Your task to perform on an android device: turn off javascript in the chrome app Image 0: 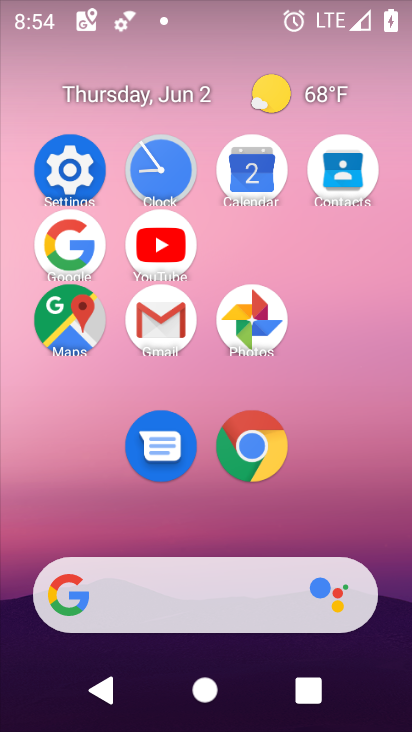
Step 0: click (245, 452)
Your task to perform on an android device: turn off javascript in the chrome app Image 1: 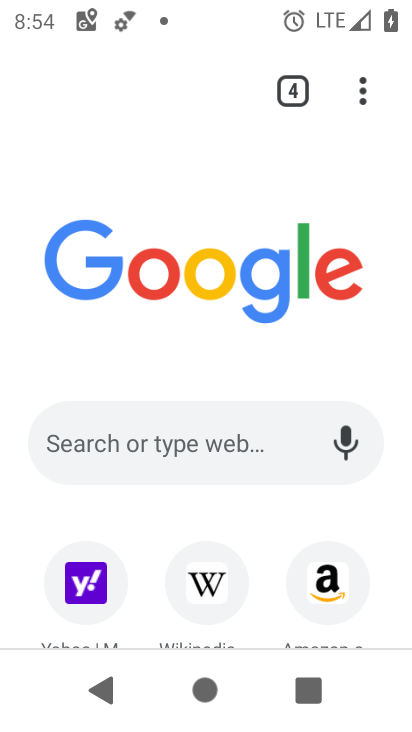
Step 1: click (376, 85)
Your task to perform on an android device: turn off javascript in the chrome app Image 2: 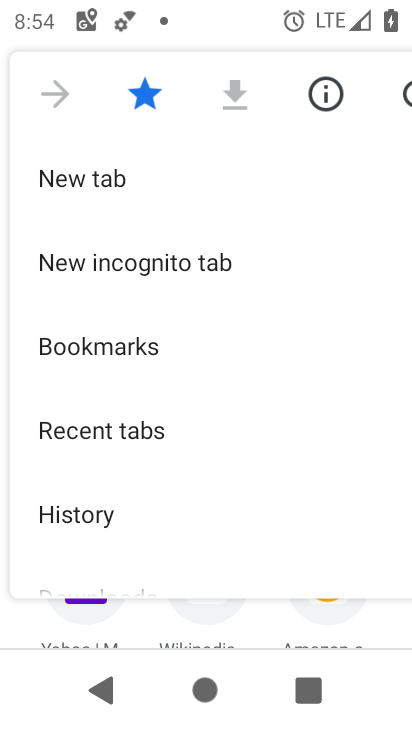
Step 2: drag from (206, 450) to (248, 140)
Your task to perform on an android device: turn off javascript in the chrome app Image 3: 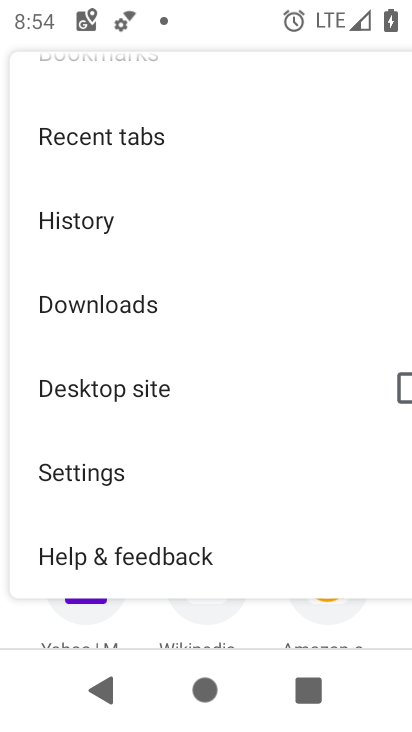
Step 3: click (189, 466)
Your task to perform on an android device: turn off javascript in the chrome app Image 4: 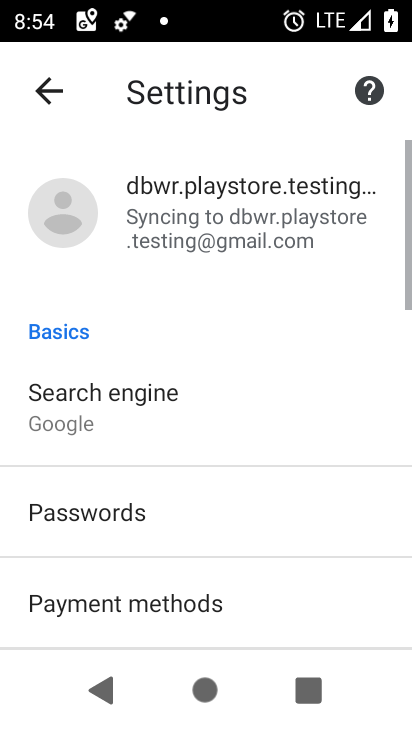
Step 4: drag from (189, 466) to (218, 153)
Your task to perform on an android device: turn off javascript in the chrome app Image 5: 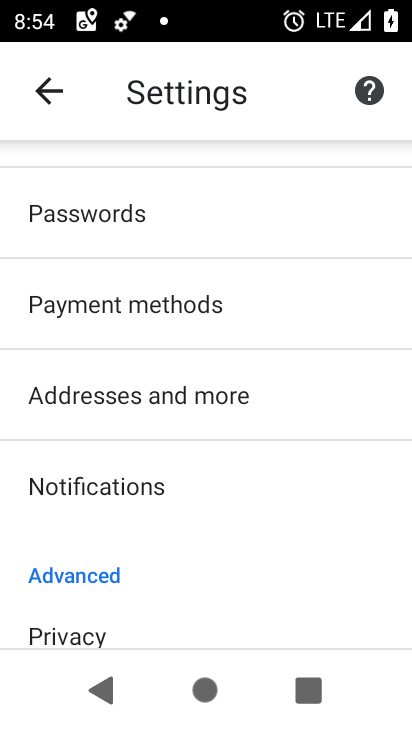
Step 5: drag from (183, 517) to (188, 125)
Your task to perform on an android device: turn off javascript in the chrome app Image 6: 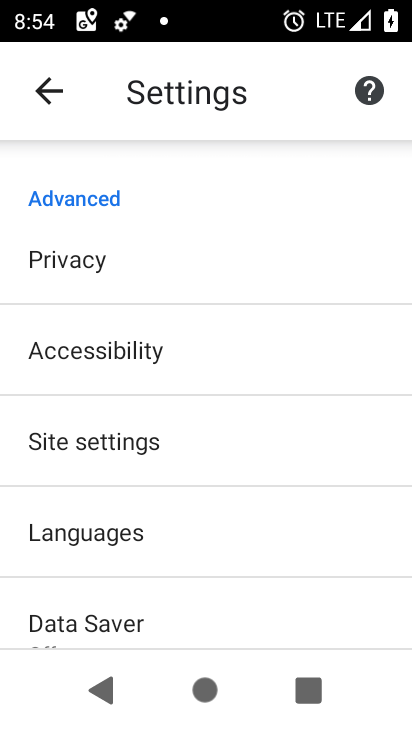
Step 6: click (185, 420)
Your task to perform on an android device: turn off javascript in the chrome app Image 7: 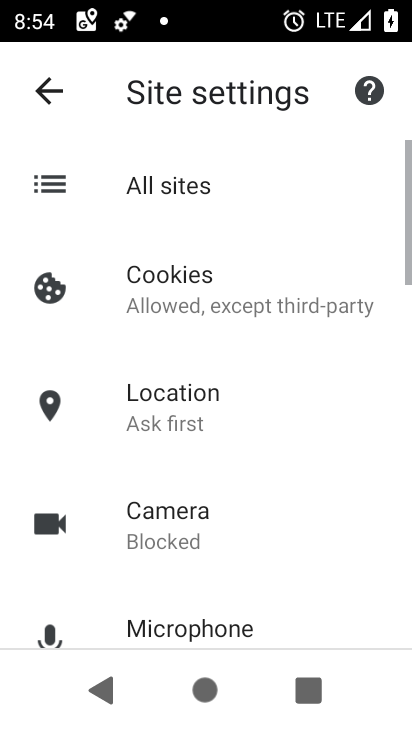
Step 7: drag from (193, 500) to (254, 187)
Your task to perform on an android device: turn off javascript in the chrome app Image 8: 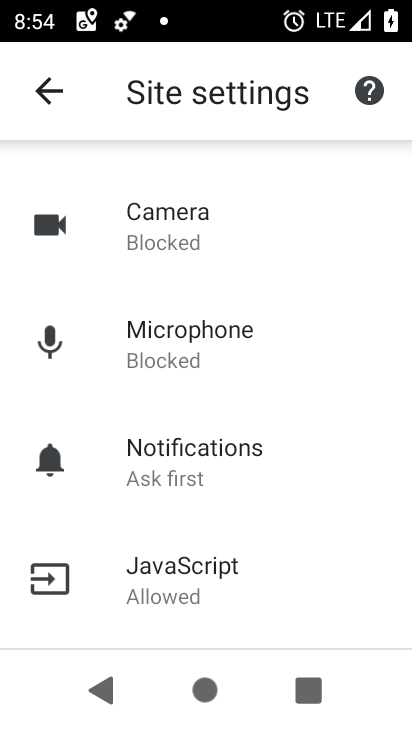
Step 8: click (228, 547)
Your task to perform on an android device: turn off javascript in the chrome app Image 9: 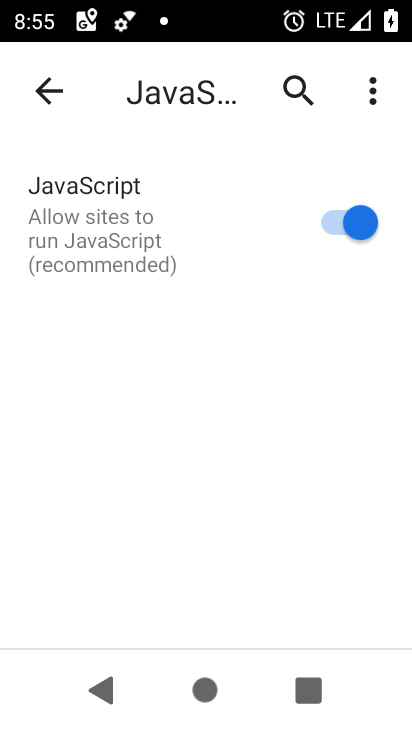
Step 9: click (335, 205)
Your task to perform on an android device: turn off javascript in the chrome app Image 10: 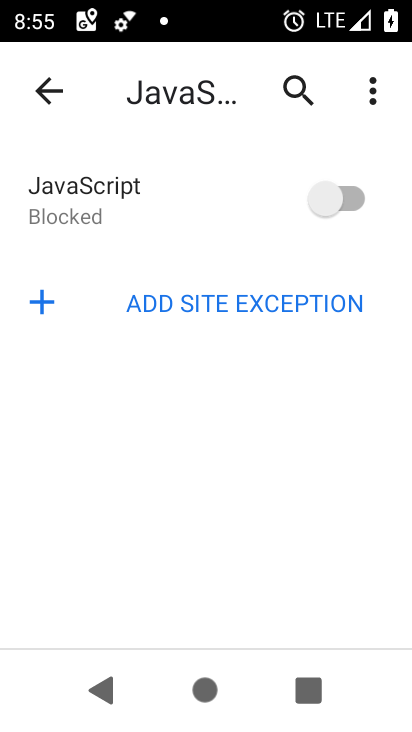
Step 10: task complete